Your task to perform on an android device: turn on location history Image 0: 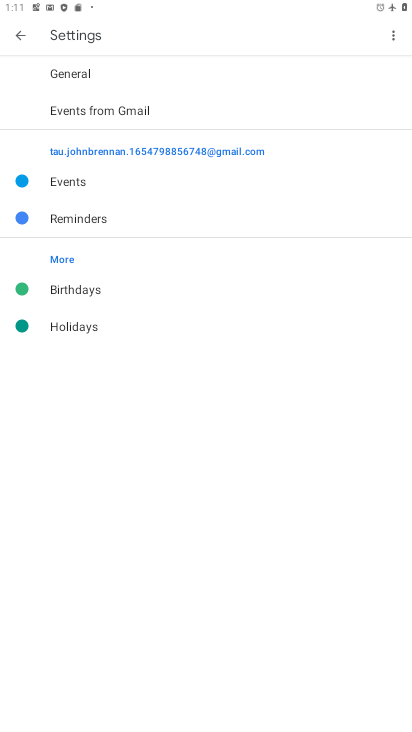
Step 0: press home button
Your task to perform on an android device: turn on location history Image 1: 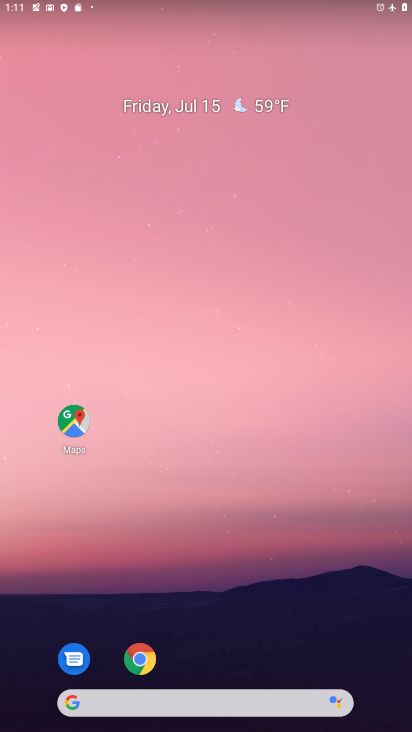
Step 1: drag from (205, 716) to (243, 124)
Your task to perform on an android device: turn on location history Image 2: 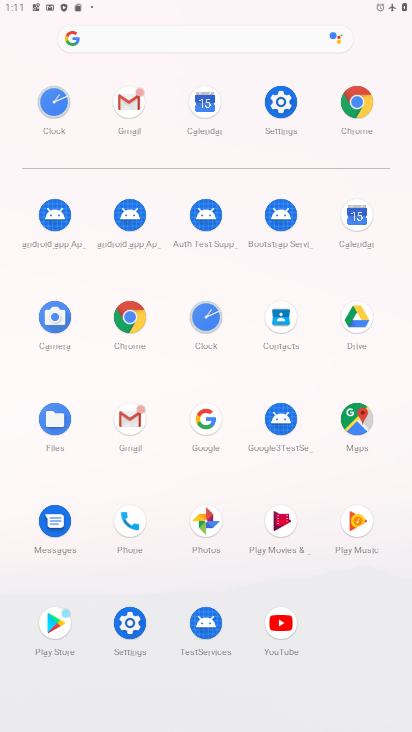
Step 2: click (285, 97)
Your task to perform on an android device: turn on location history Image 3: 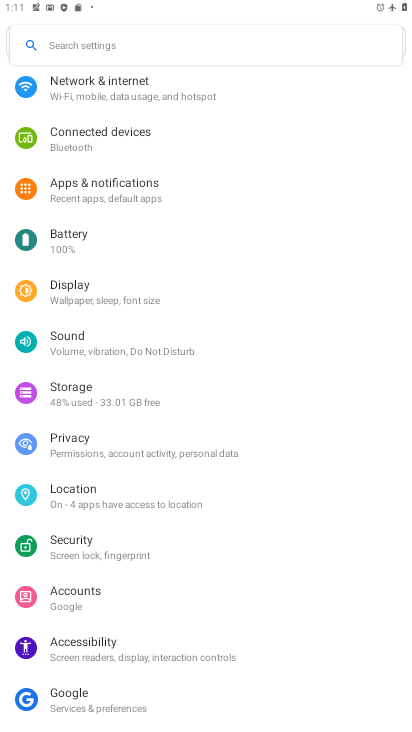
Step 3: click (102, 491)
Your task to perform on an android device: turn on location history Image 4: 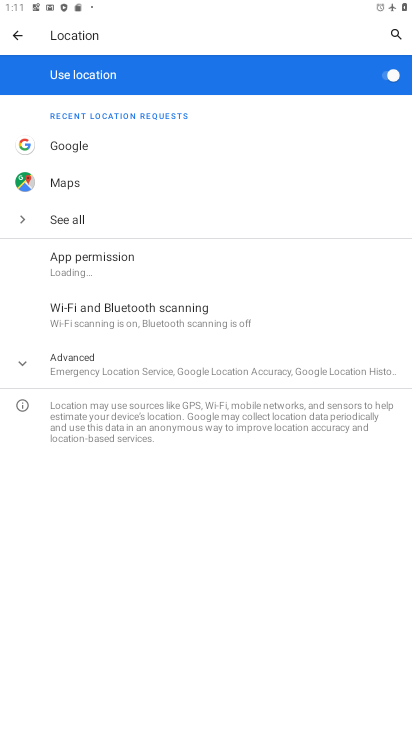
Step 4: click (93, 359)
Your task to perform on an android device: turn on location history Image 5: 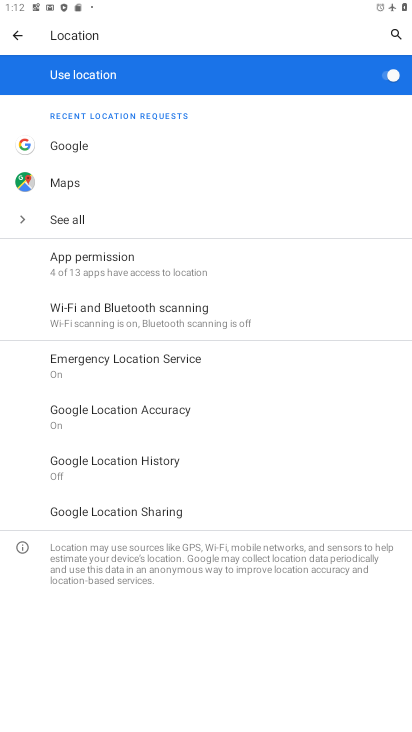
Step 5: click (125, 457)
Your task to perform on an android device: turn on location history Image 6: 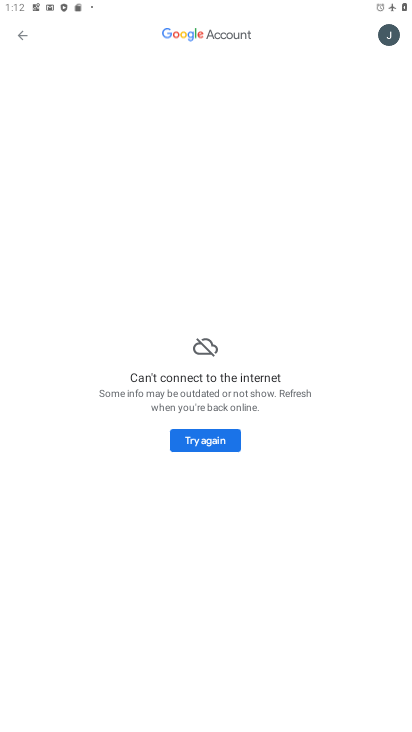
Step 6: task complete